Your task to perform on an android device: check google app version Image 0: 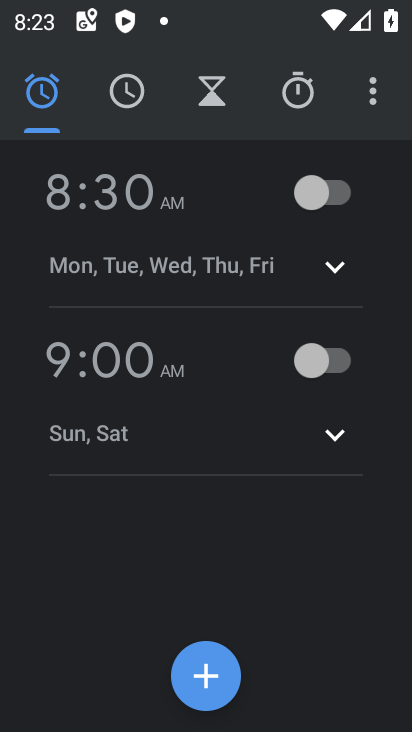
Step 0: press back button
Your task to perform on an android device: check google app version Image 1: 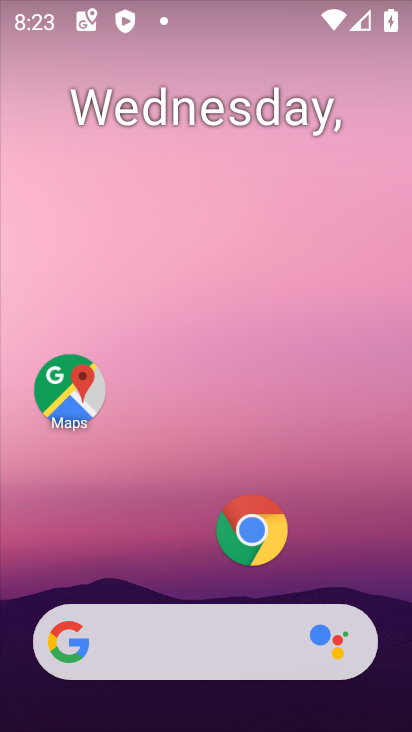
Step 1: drag from (123, 582) to (220, 40)
Your task to perform on an android device: check google app version Image 2: 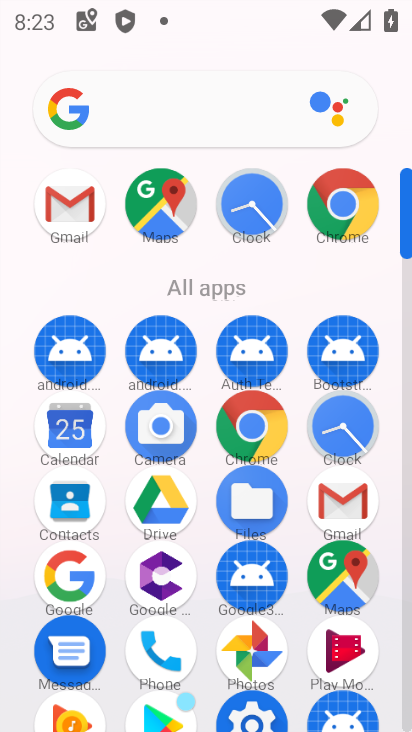
Step 2: click (74, 582)
Your task to perform on an android device: check google app version Image 3: 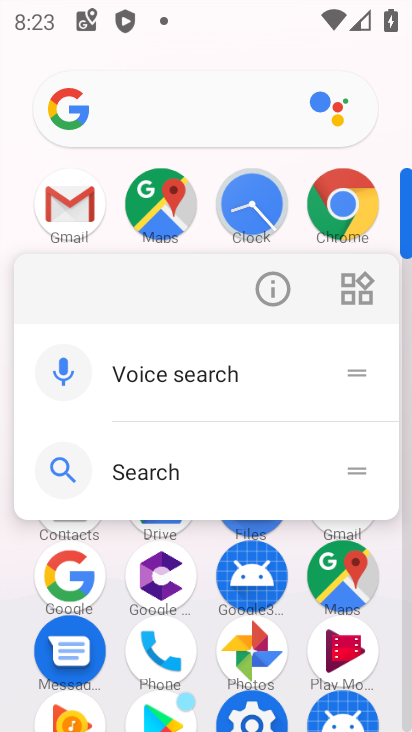
Step 3: click (264, 283)
Your task to perform on an android device: check google app version Image 4: 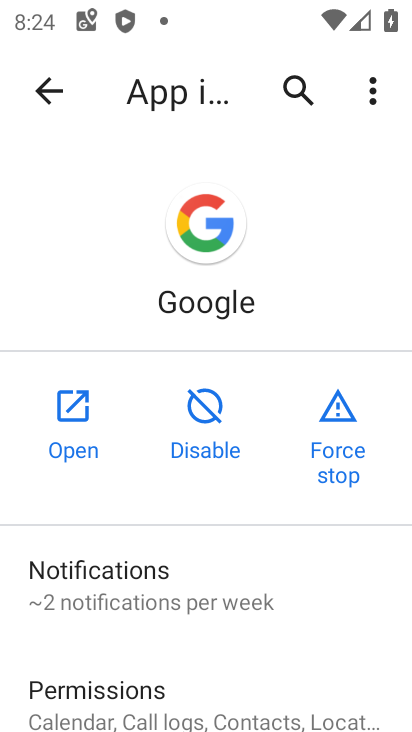
Step 4: drag from (272, 668) to (378, 25)
Your task to perform on an android device: check google app version Image 5: 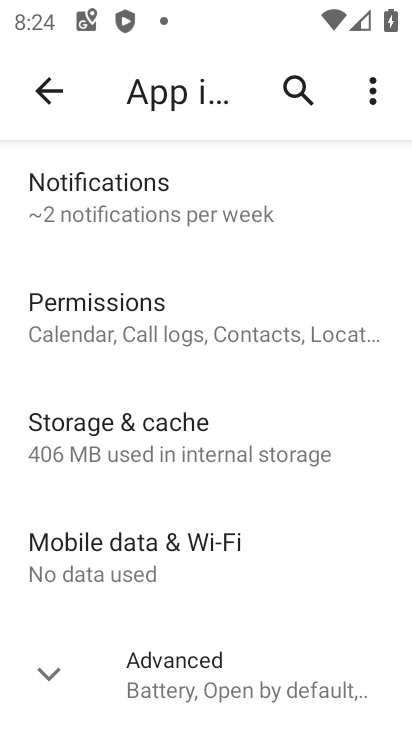
Step 5: drag from (319, 580) to (344, 49)
Your task to perform on an android device: check google app version Image 6: 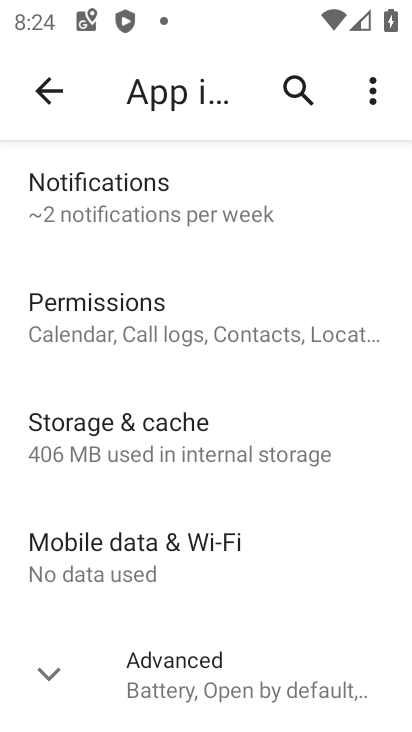
Step 6: drag from (177, 618) to (263, 26)
Your task to perform on an android device: check google app version Image 7: 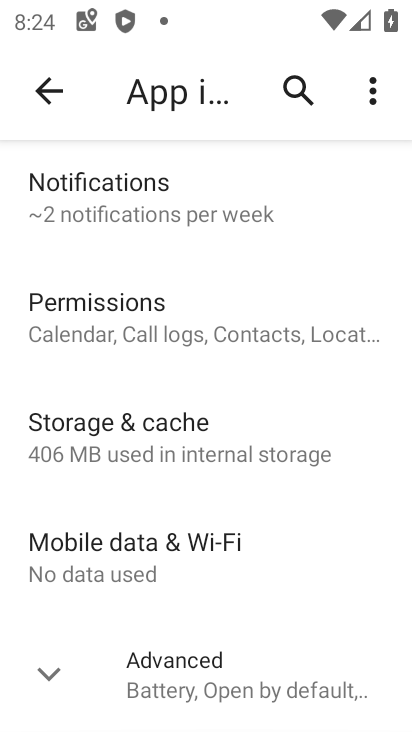
Step 7: click (177, 661)
Your task to perform on an android device: check google app version Image 8: 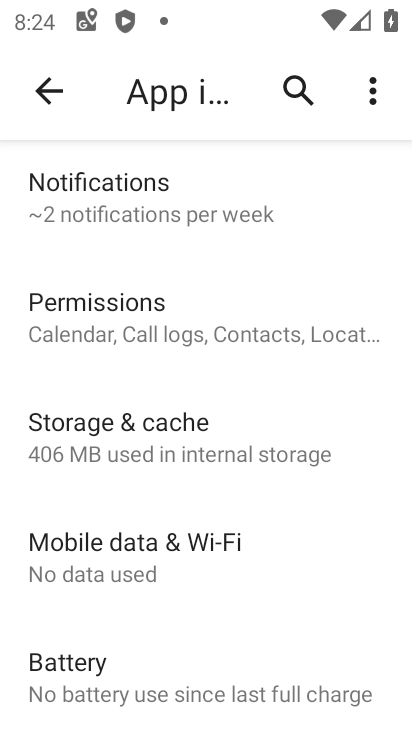
Step 8: task complete